Your task to perform on an android device: open sync settings in chrome Image 0: 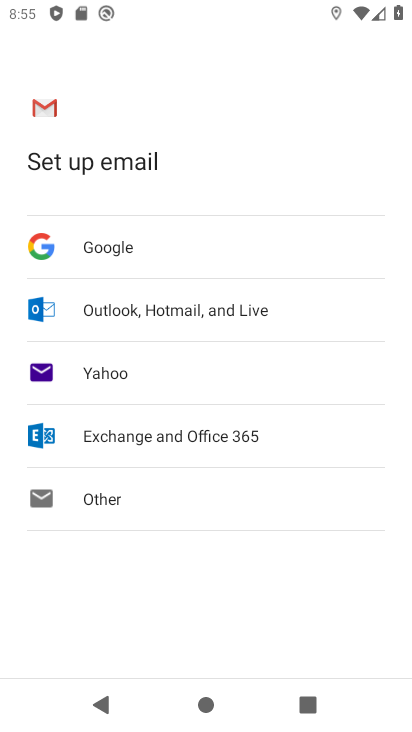
Step 0: press home button
Your task to perform on an android device: open sync settings in chrome Image 1: 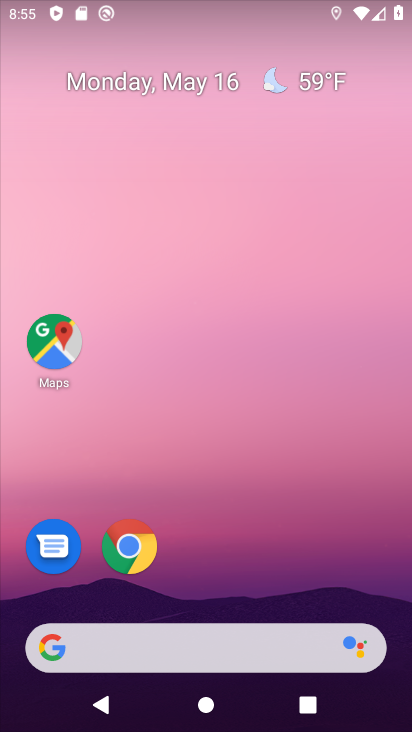
Step 1: drag from (262, 524) to (252, 53)
Your task to perform on an android device: open sync settings in chrome Image 2: 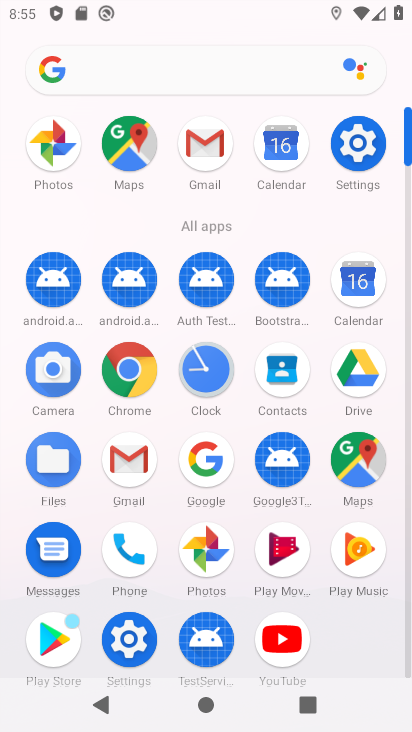
Step 2: click (143, 372)
Your task to perform on an android device: open sync settings in chrome Image 3: 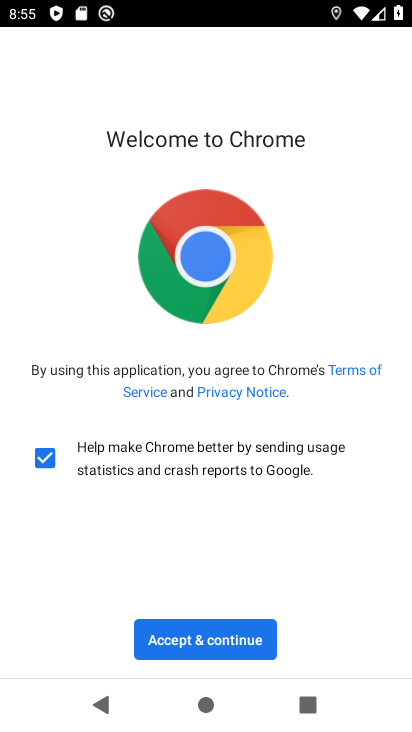
Step 3: click (241, 623)
Your task to perform on an android device: open sync settings in chrome Image 4: 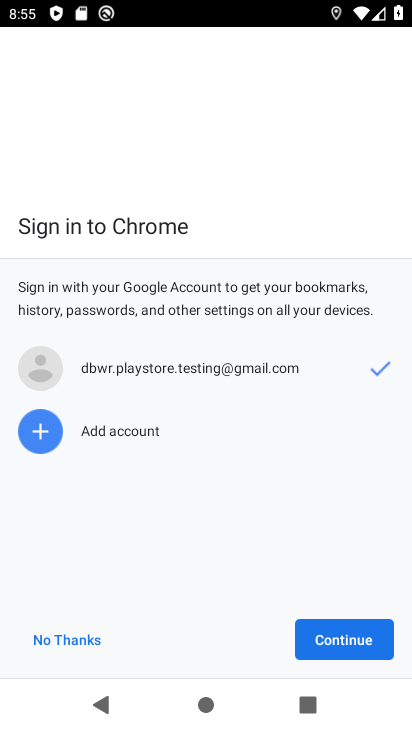
Step 4: click (331, 646)
Your task to perform on an android device: open sync settings in chrome Image 5: 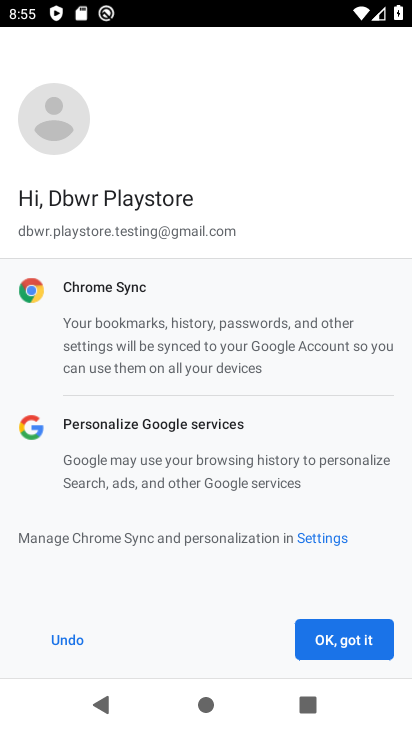
Step 5: click (331, 644)
Your task to perform on an android device: open sync settings in chrome Image 6: 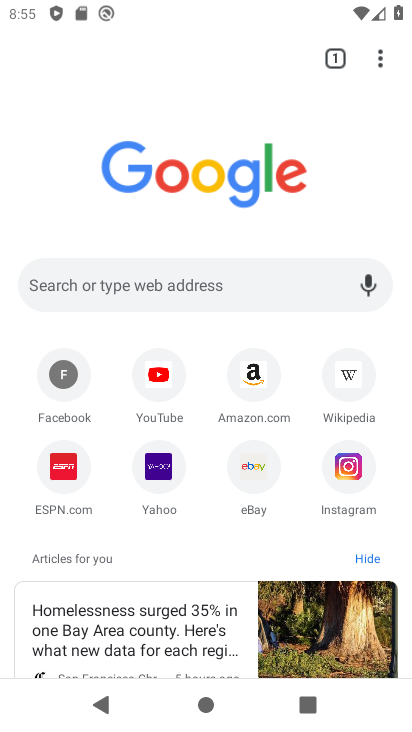
Step 6: drag from (375, 70) to (178, 492)
Your task to perform on an android device: open sync settings in chrome Image 7: 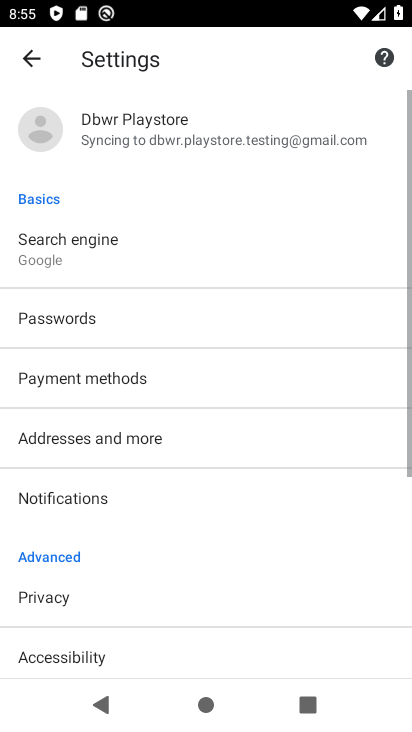
Step 7: drag from (139, 576) to (214, 147)
Your task to perform on an android device: open sync settings in chrome Image 8: 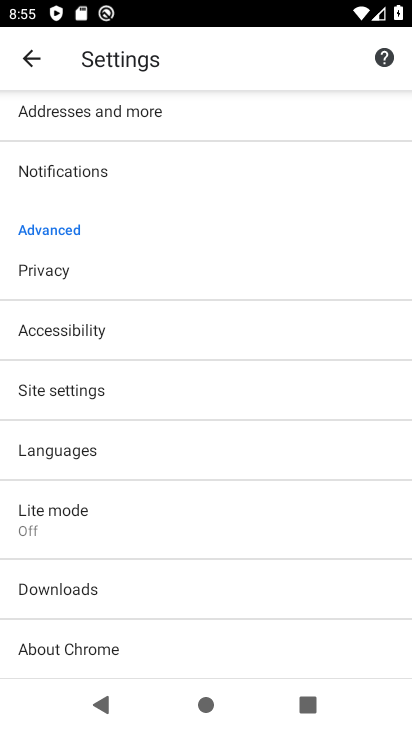
Step 8: drag from (183, 569) to (235, 170)
Your task to perform on an android device: open sync settings in chrome Image 9: 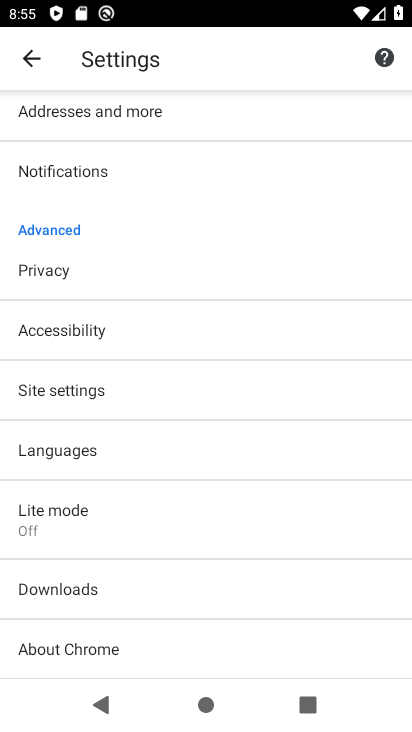
Step 9: click (100, 392)
Your task to perform on an android device: open sync settings in chrome Image 10: 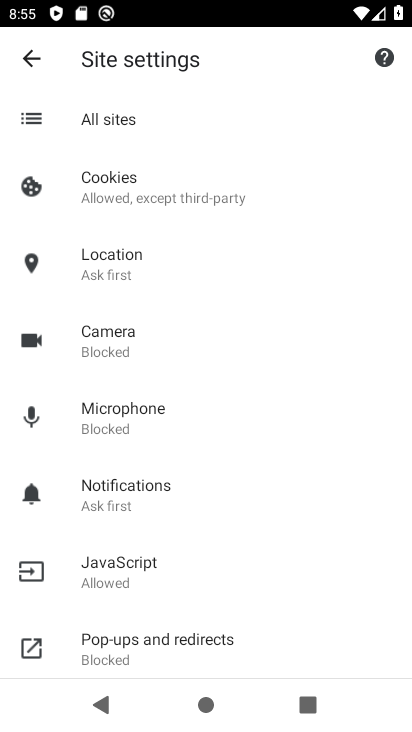
Step 10: drag from (153, 629) to (156, 271)
Your task to perform on an android device: open sync settings in chrome Image 11: 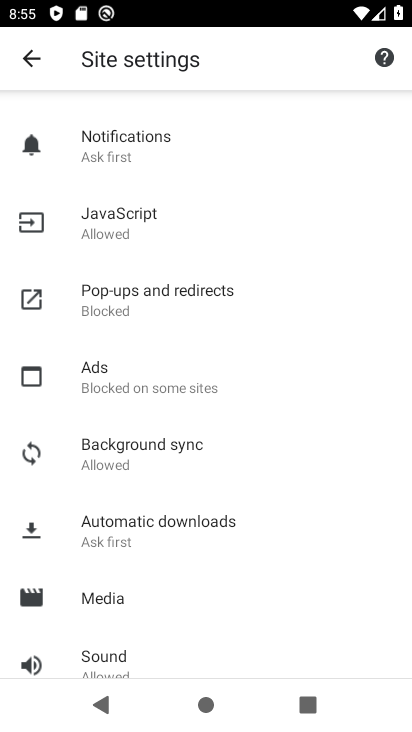
Step 11: drag from (163, 590) to (224, 263)
Your task to perform on an android device: open sync settings in chrome Image 12: 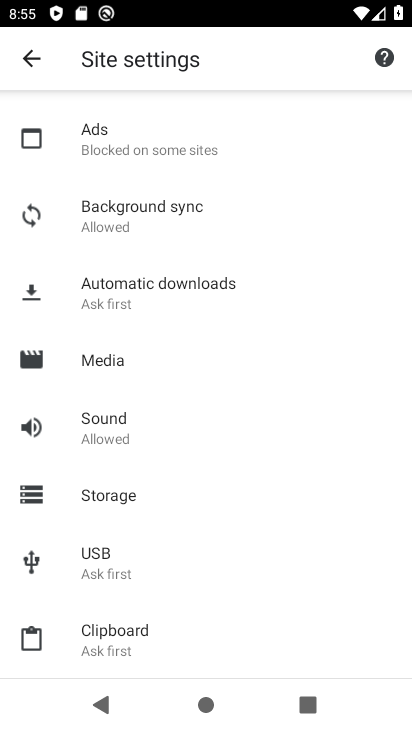
Step 12: drag from (130, 600) to (153, 357)
Your task to perform on an android device: open sync settings in chrome Image 13: 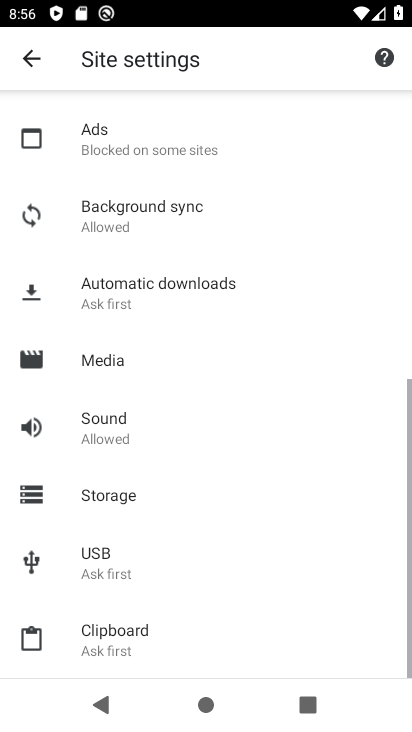
Step 13: drag from (131, 416) to (138, 554)
Your task to perform on an android device: open sync settings in chrome Image 14: 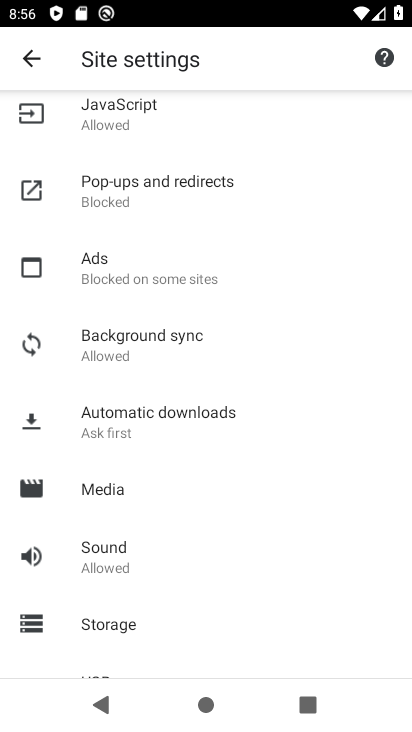
Step 14: click (124, 344)
Your task to perform on an android device: open sync settings in chrome Image 15: 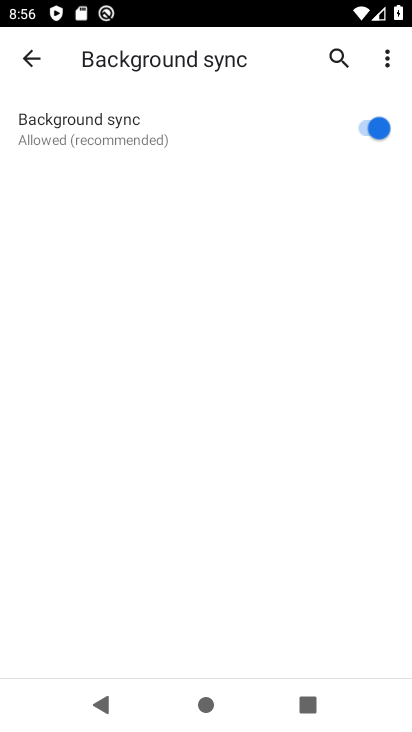
Step 15: task complete